Your task to perform on an android device: Go to privacy settings Image 0: 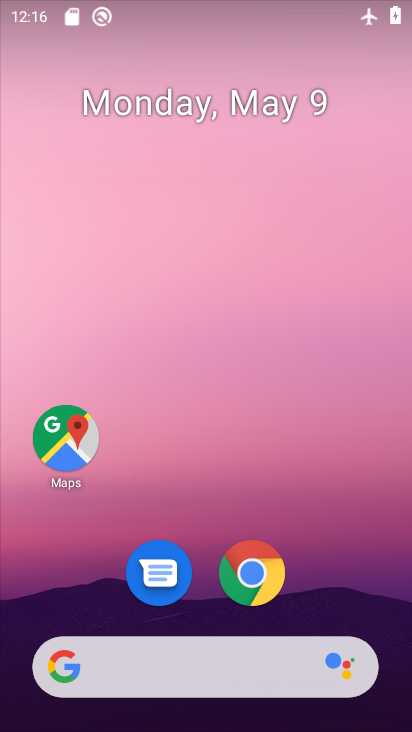
Step 0: drag from (213, 625) to (259, 297)
Your task to perform on an android device: Go to privacy settings Image 1: 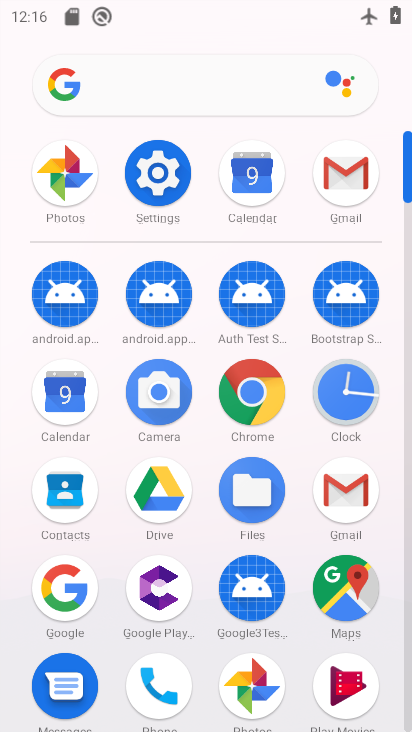
Step 1: click (150, 175)
Your task to perform on an android device: Go to privacy settings Image 2: 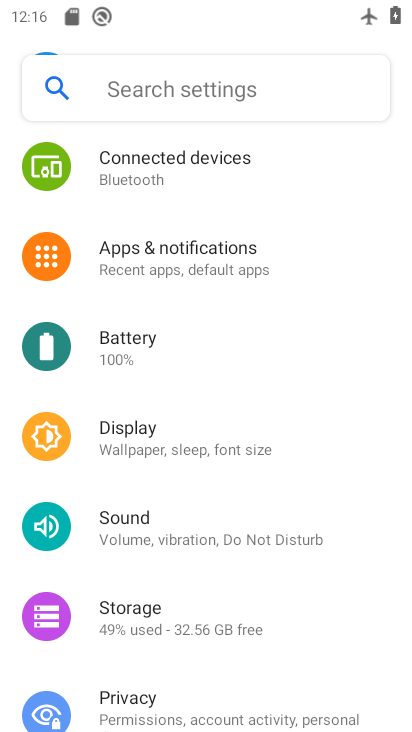
Step 2: drag from (175, 643) to (195, 316)
Your task to perform on an android device: Go to privacy settings Image 3: 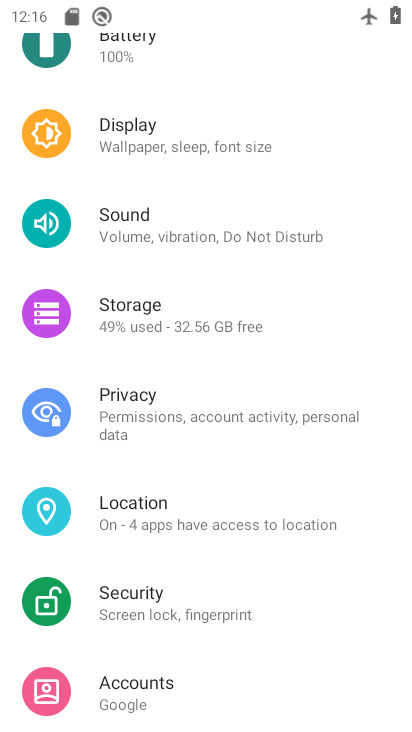
Step 3: click (127, 409)
Your task to perform on an android device: Go to privacy settings Image 4: 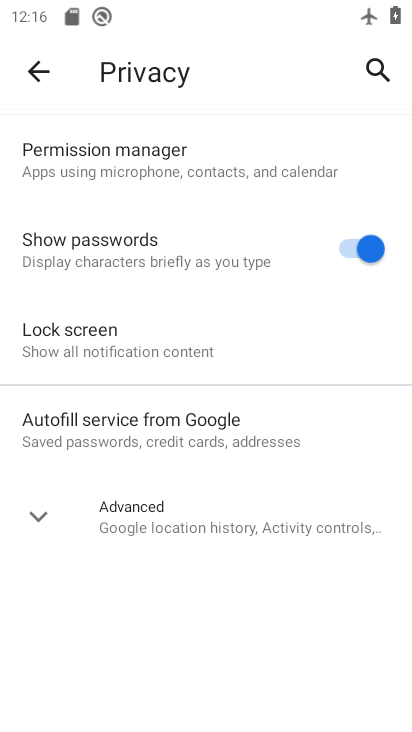
Step 4: click (148, 523)
Your task to perform on an android device: Go to privacy settings Image 5: 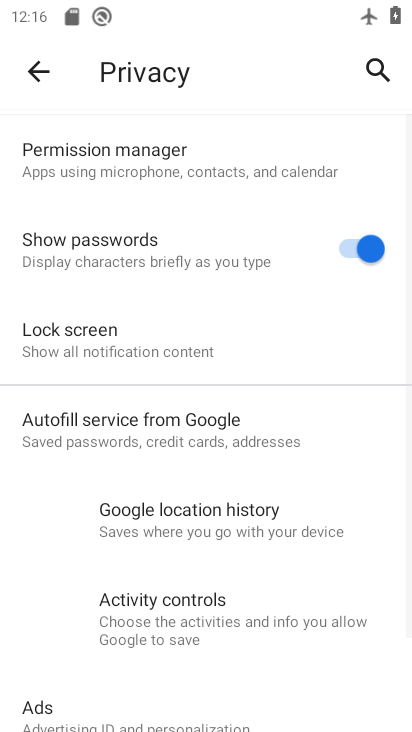
Step 5: task complete